Your task to perform on an android device: Is it going to rain tomorrow? Image 0: 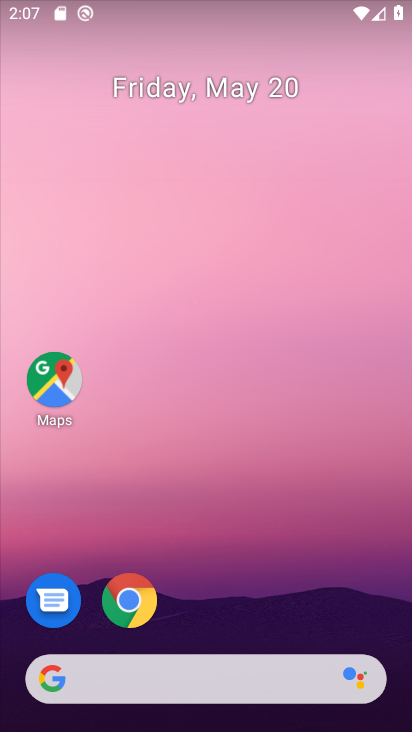
Step 0: drag from (286, 517) to (150, 72)
Your task to perform on an android device: Is it going to rain tomorrow? Image 1: 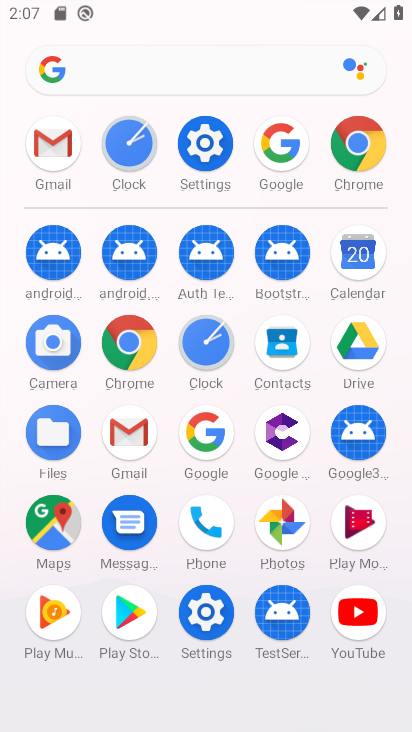
Step 1: click (203, 445)
Your task to perform on an android device: Is it going to rain tomorrow? Image 2: 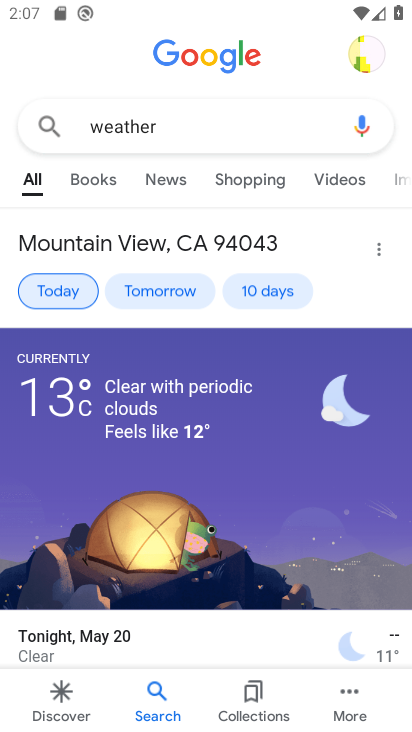
Step 2: click (158, 292)
Your task to perform on an android device: Is it going to rain tomorrow? Image 3: 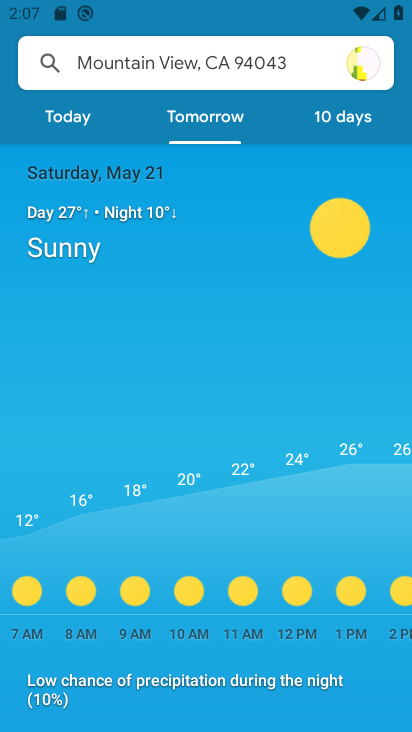
Step 3: task complete